Your task to perform on an android device: Set the phone to "Do not disturb". Image 0: 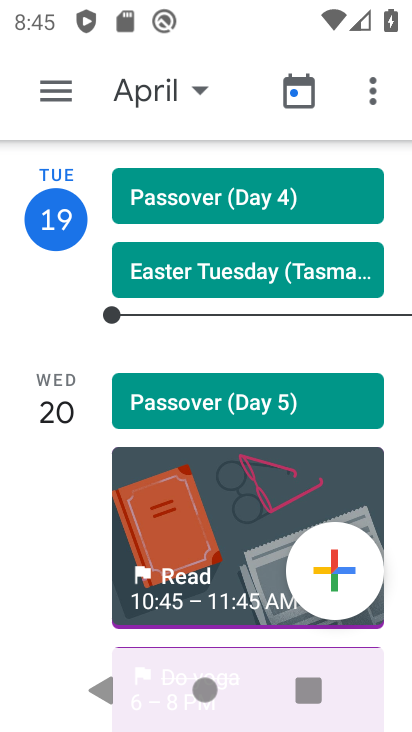
Step 0: press home button
Your task to perform on an android device: Set the phone to "Do not disturb". Image 1: 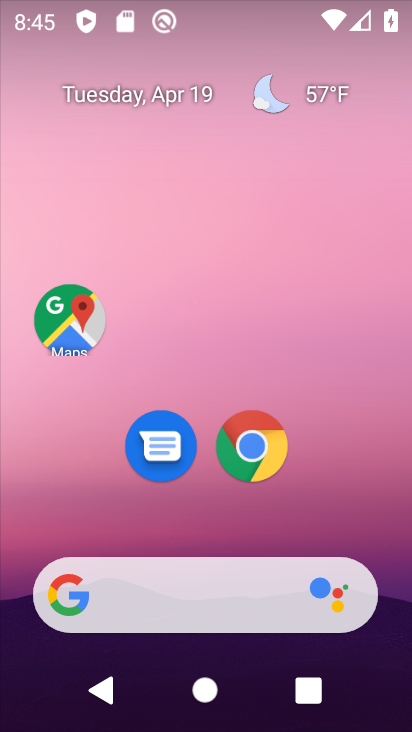
Step 1: drag from (316, 519) to (294, 117)
Your task to perform on an android device: Set the phone to "Do not disturb". Image 2: 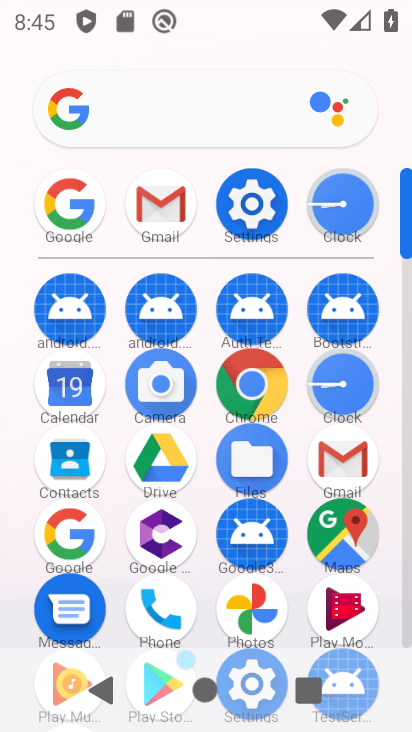
Step 2: click (257, 194)
Your task to perform on an android device: Set the phone to "Do not disturb". Image 3: 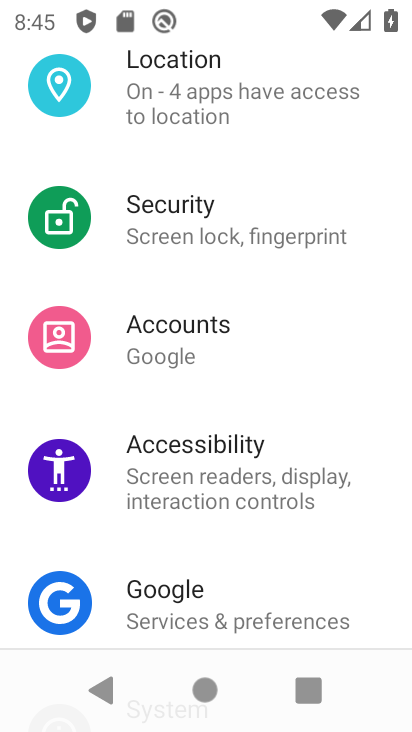
Step 3: drag from (244, 154) to (186, 551)
Your task to perform on an android device: Set the phone to "Do not disturb". Image 4: 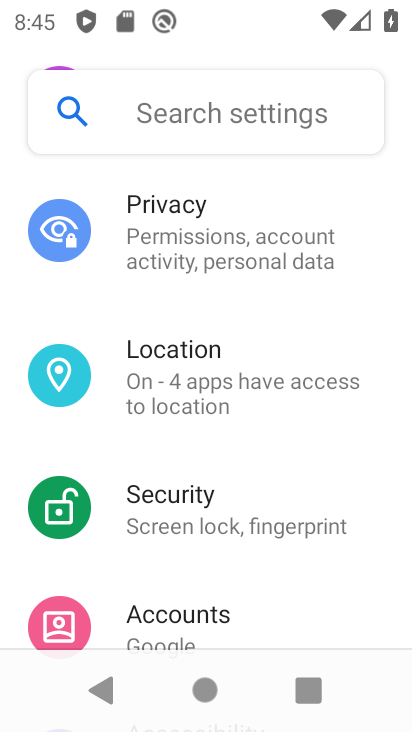
Step 4: drag from (218, 264) to (184, 584)
Your task to perform on an android device: Set the phone to "Do not disturb". Image 5: 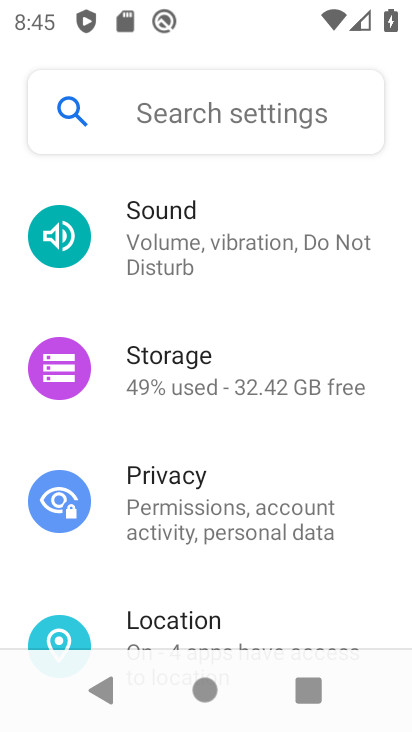
Step 5: drag from (217, 247) to (214, 429)
Your task to perform on an android device: Set the phone to "Do not disturb". Image 6: 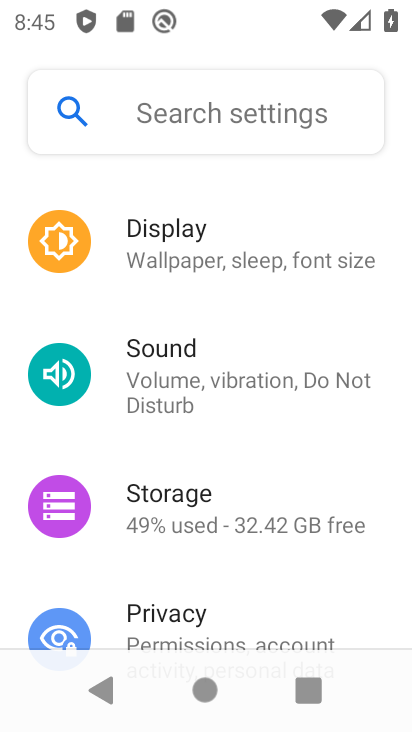
Step 6: click (176, 382)
Your task to perform on an android device: Set the phone to "Do not disturb". Image 7: 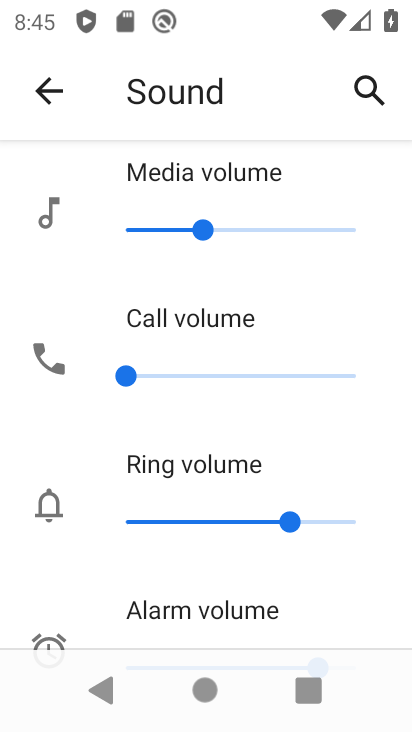
Step 7: drag from (174, 599) to (174, 129)
Your task to perform on an android device: Set the phone to "Do not disturb". Image 8: 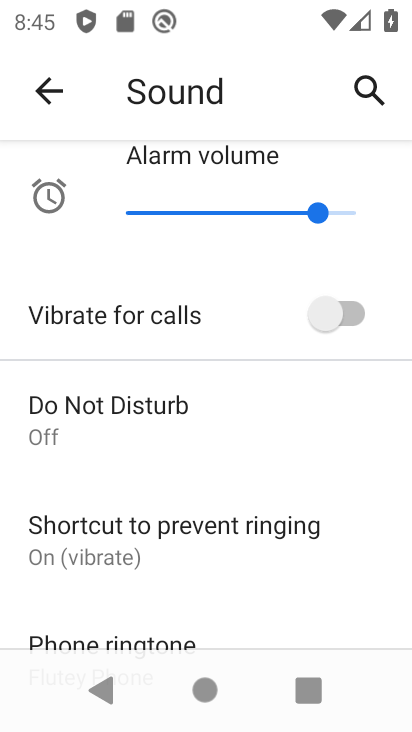
Step 8: click (69, 424)
Your task to perform on an android device: Set the phone to "Do not disturb". Image 9: 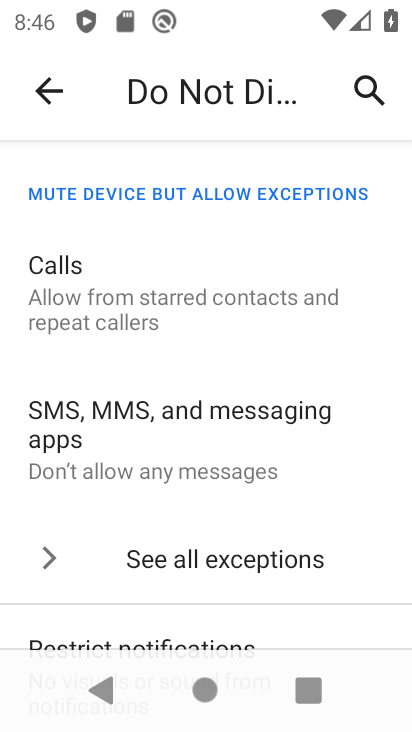
Step 9: drag from (268, 583) to (209, 159)
Your task to perform on an android device: Set the phone to "Do not disturb". Image 10: 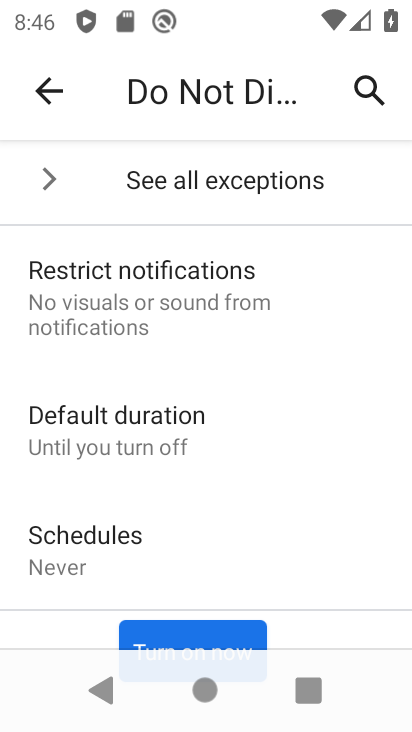
Step 10: drag from (137, 596) to (167, 339)
Your task to perform on an android device: Set the phone to "Do not disturb". Image 11: 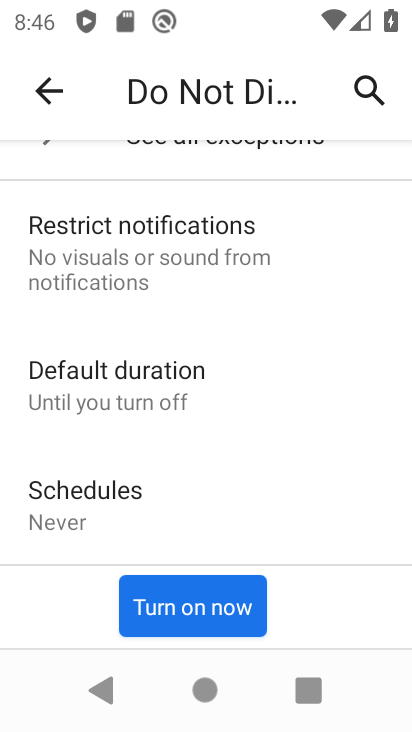
Step 11: click (178, 627)
Your task to perform on an android device: Set the phone to "Do not disturb". Image 12: 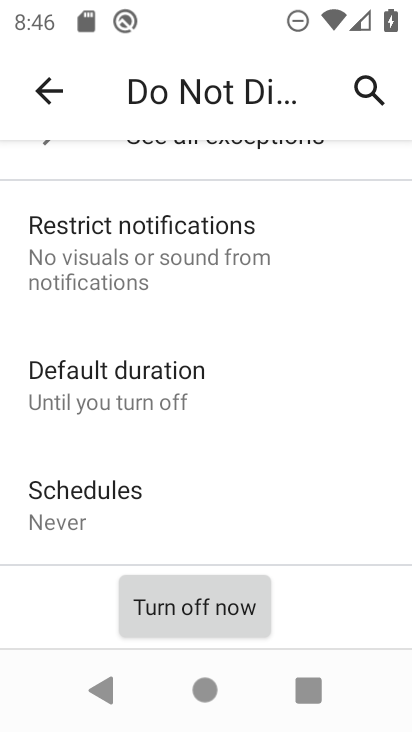
Step 12: task complete